Your task to perform on an android device: Set the phone to "Do not disturb". Image 0: 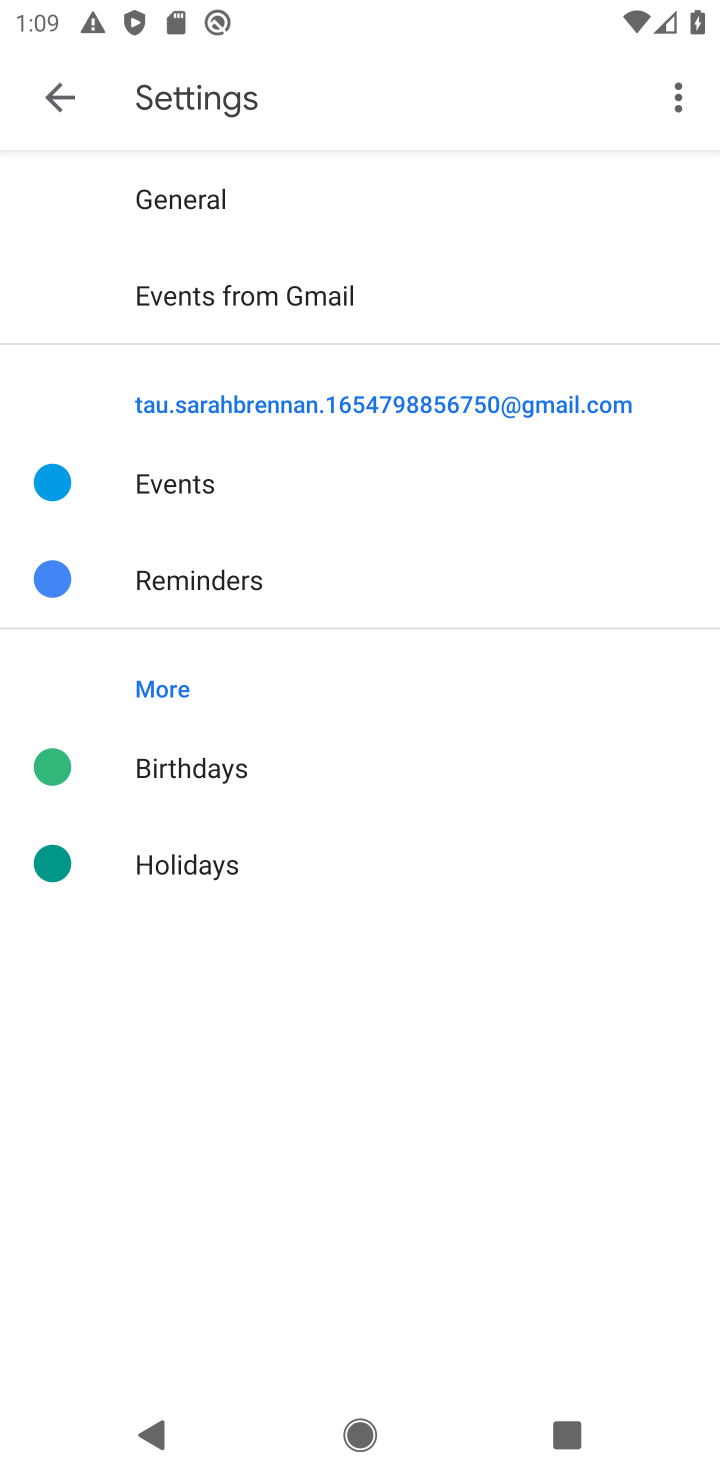
Step 0: press back button
Your task to perform on an android device: Set the phone to "Do not disturb". Image 1: 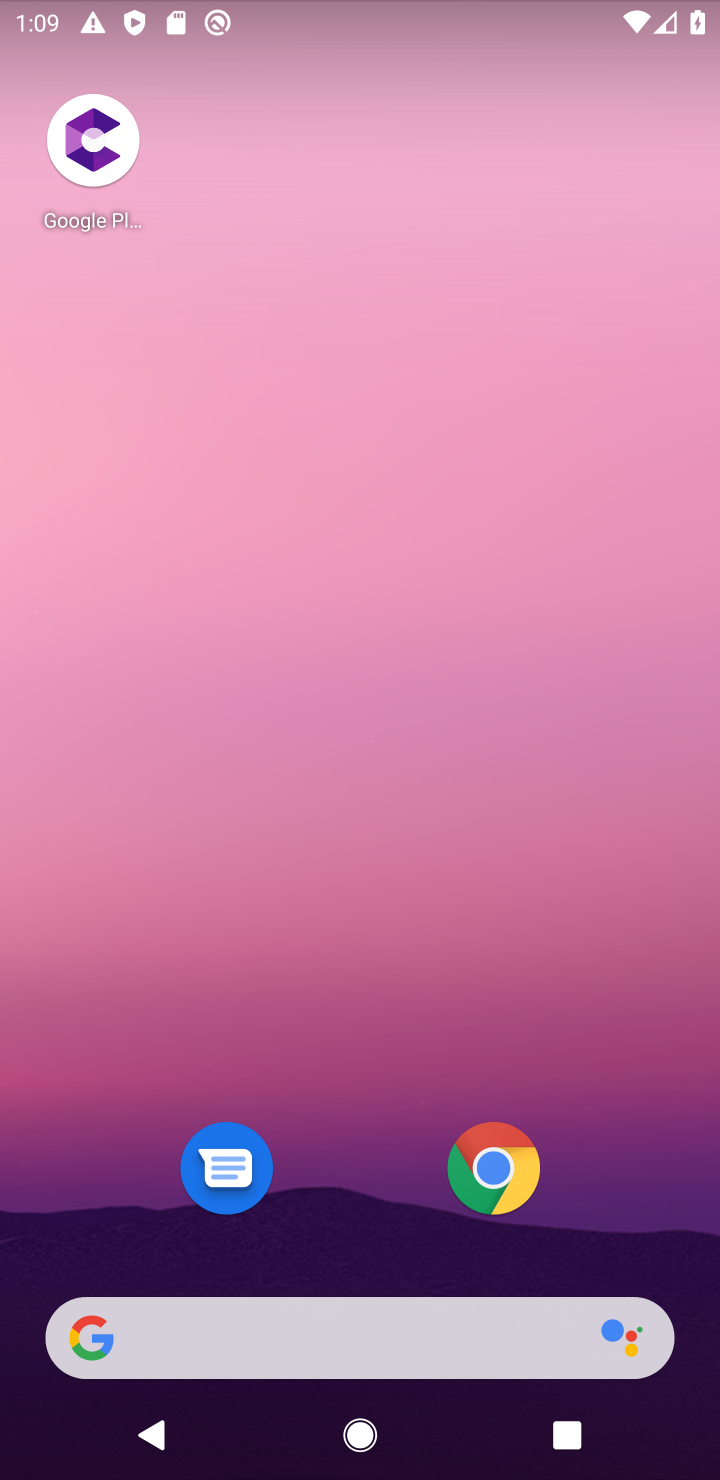
Step 1: drag from (368, 1274) to (268, 1416)
Your task to perform on an android device: Set the phone to "Do not disturb". Image 2: 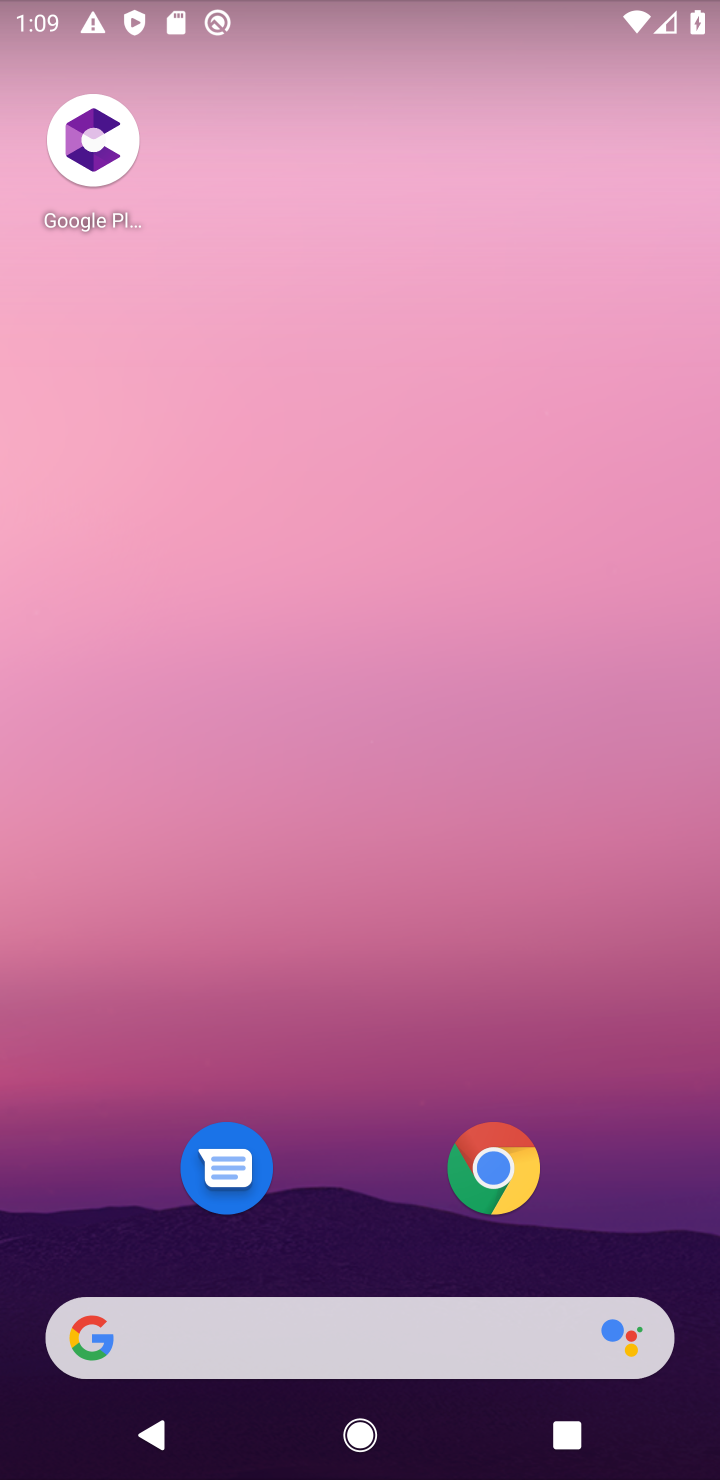
Step 2: drag from (261, 44) to (232, 1246)
Your task to perform on an android device: Set the phone to "Do not disturb". Image 3: 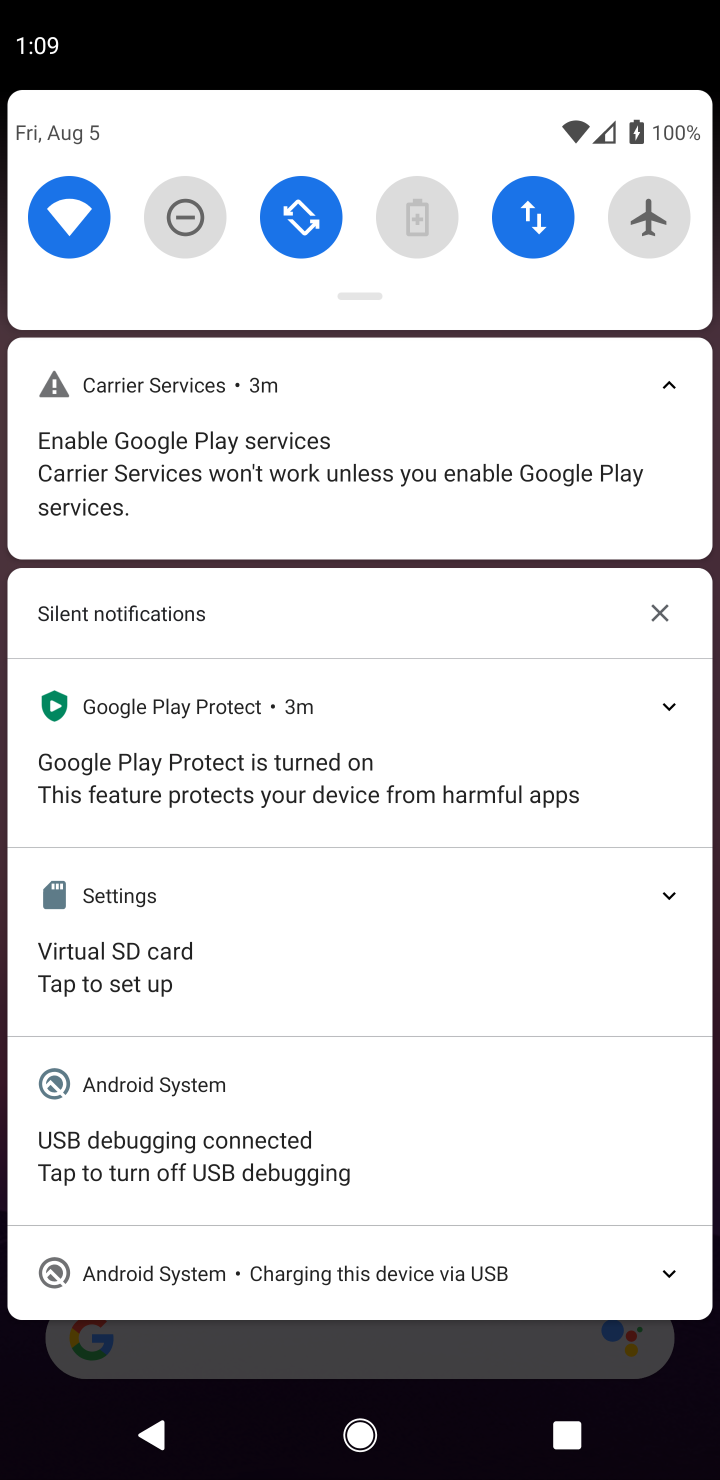
Step 3: click (197, 221)
Your task to perform on an android device: Set the phone to "Do not disturb". Image 4: 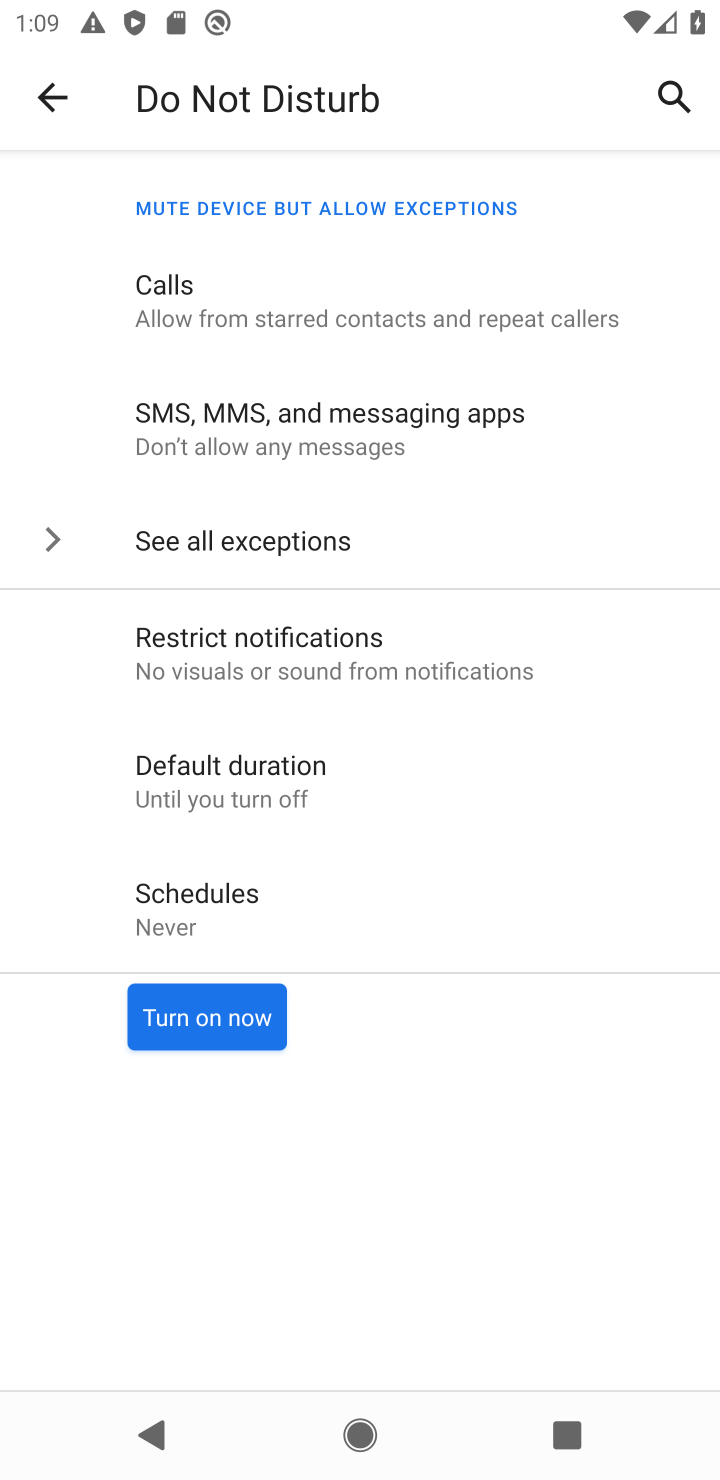
Step 4: drag from (181, 38) to (164, 955)
Your task to perform on an android device: Set the phone to "Do not disturb". Image 5: 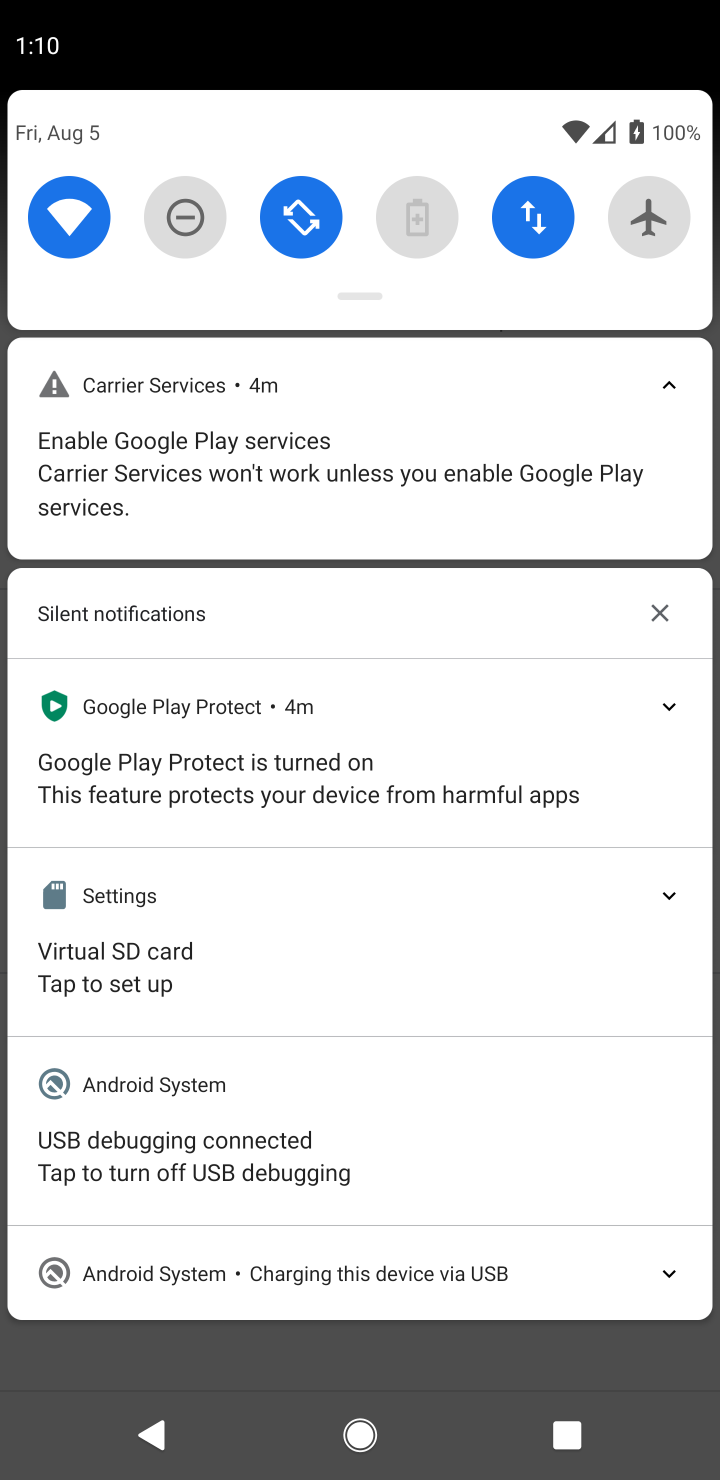
Step 5: click (197, 216)
Your task to perform on an android device: Set the phone to "Do not disturb". Image 6: 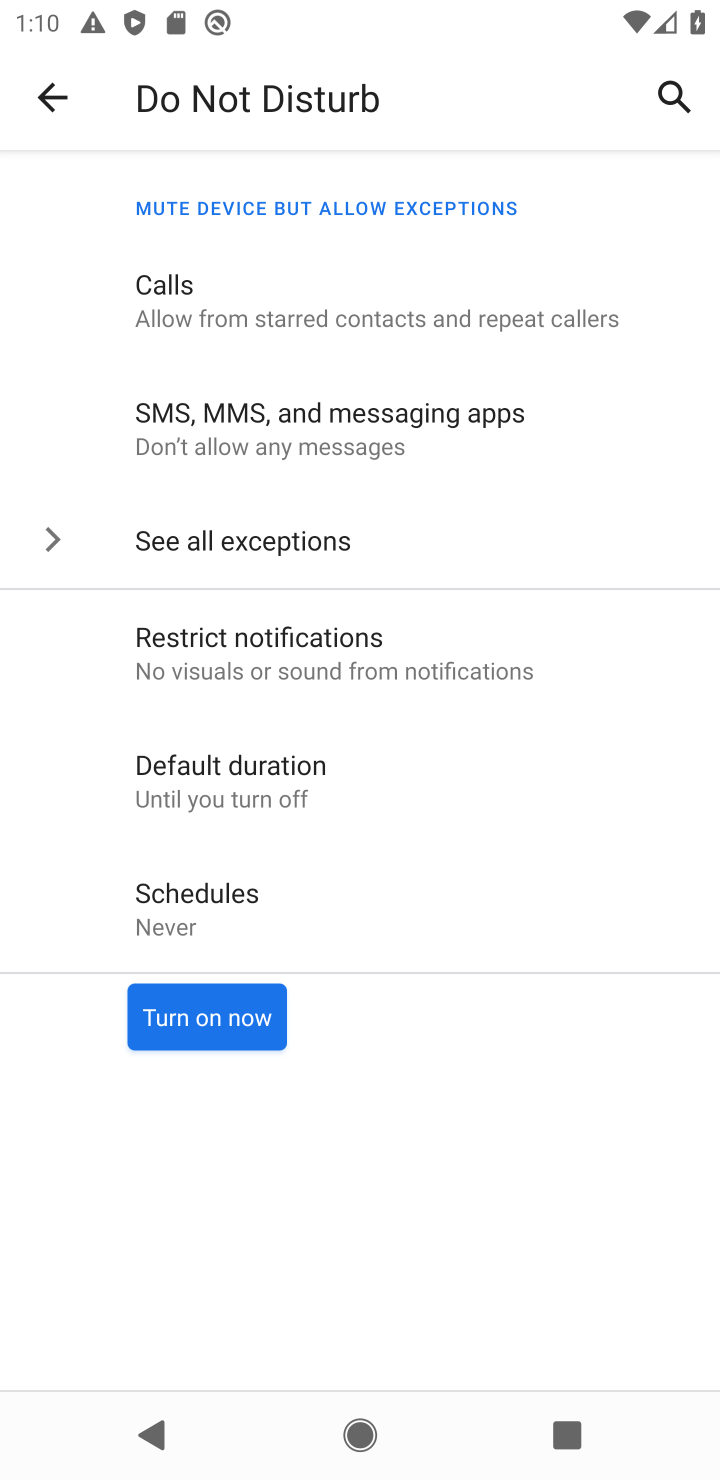
Step 6: click (266, 1008)
Your task to perform on an android device: Set the phone to "Do not disturb". Image 7: 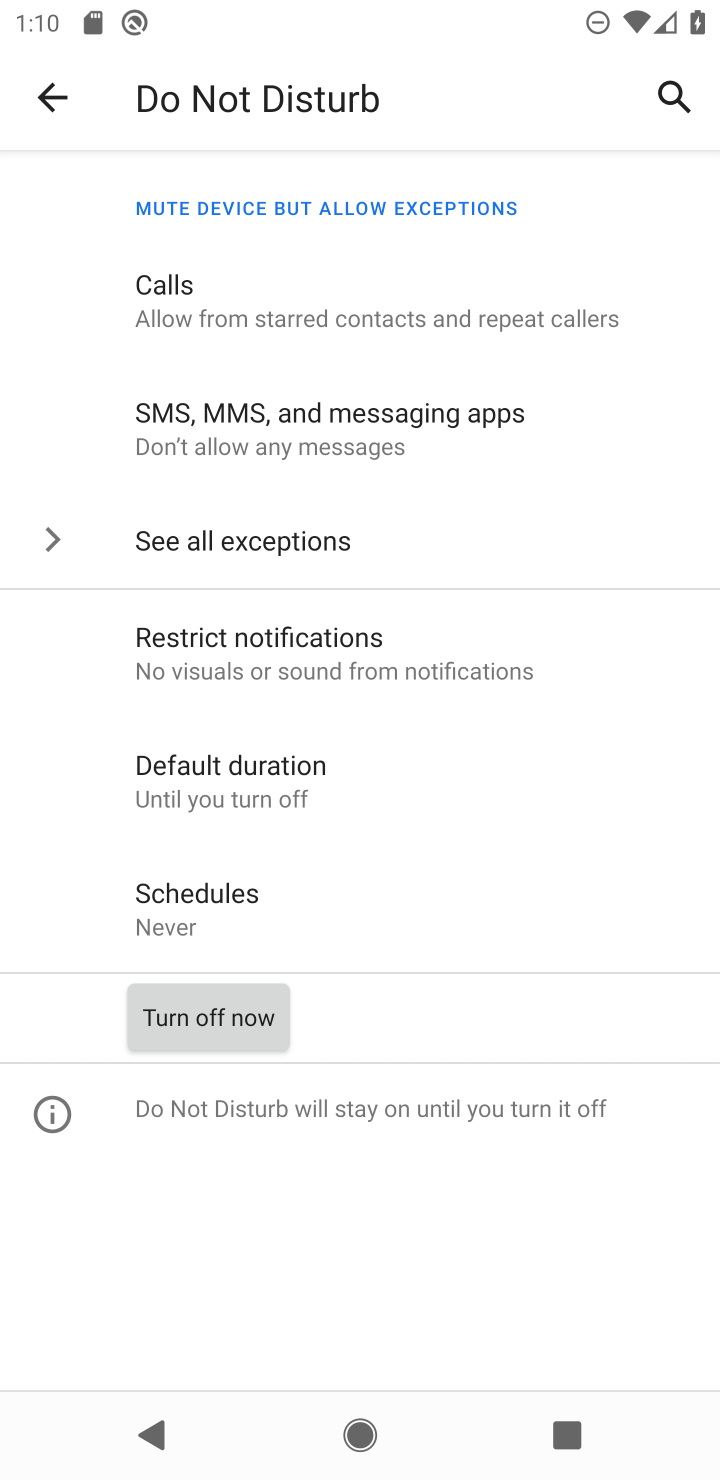
Step 7: task complete